Your task to perform on an android device: allow cookies in the chrome app Image 0: 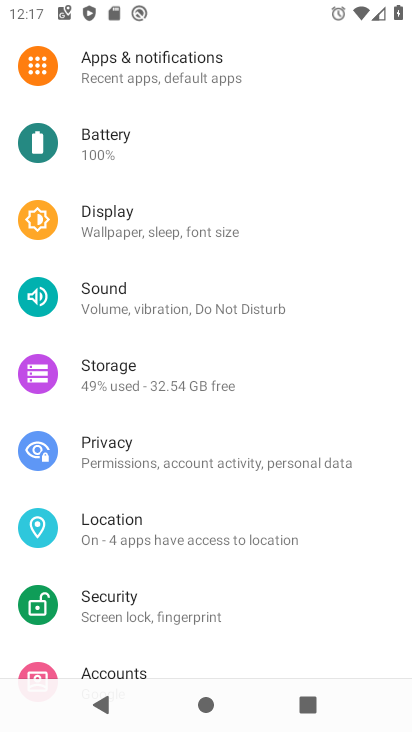
Step 0: press home button
Your task to perform on an android device: allow cookies in the chrome app Image 1: 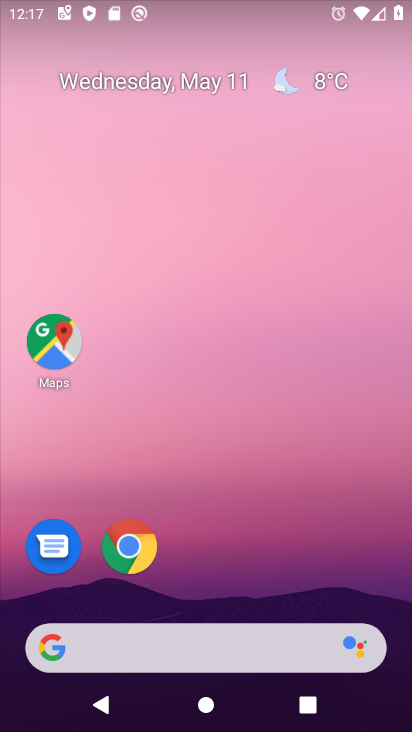
Step 1: click (140, 554)
Your task to perform on an android device: allow cookies in the chrome app Image 2: 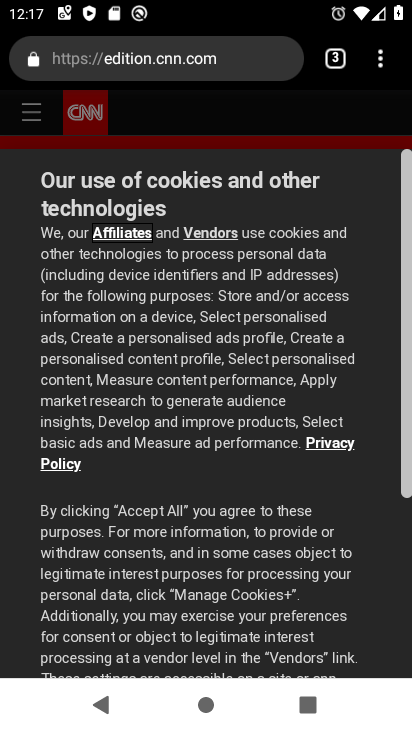
Step 2: drag from (374, 63) to (247, 581)
Your task to perform on an android device: allow cookies in the chrome app Image 3: 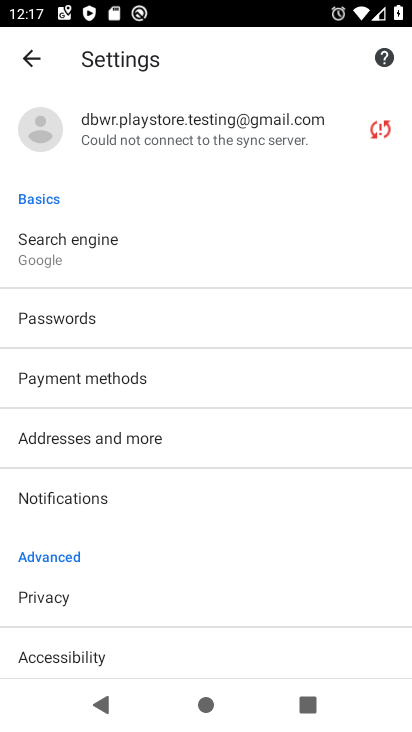
Step 3: drag from (188, 632) to (409, 307)
Your task to perform on an android device: allow cookies in the chrome app Image 4: 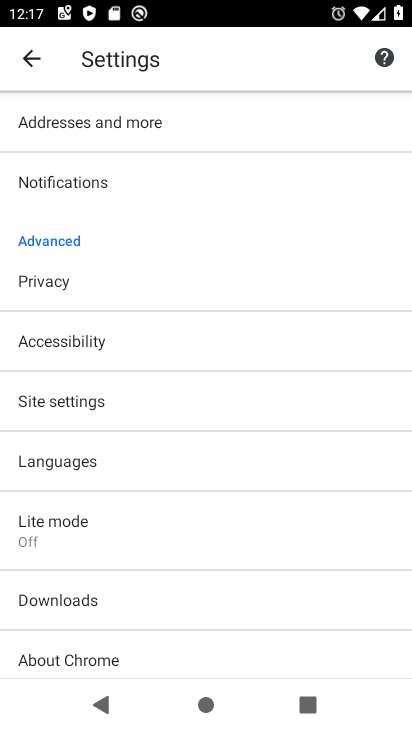
Step 4: click (80, 405)
Your task to perform on an android device: allow cookies in the chrome app Image 5: 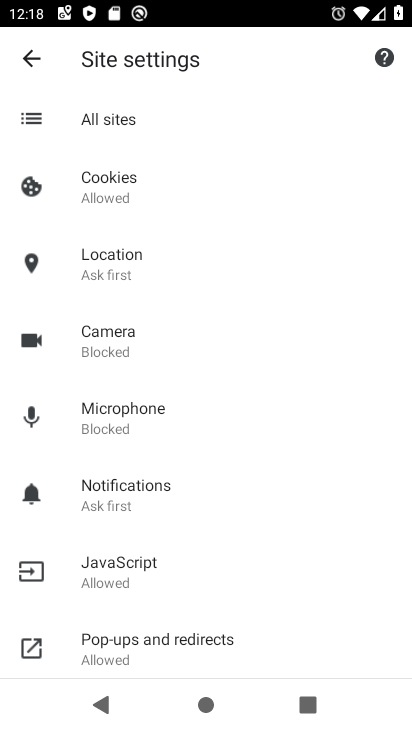
Step 5: click (121, 182)
Your task to perform on an android device: allow cookies in the chrome app Image 6: 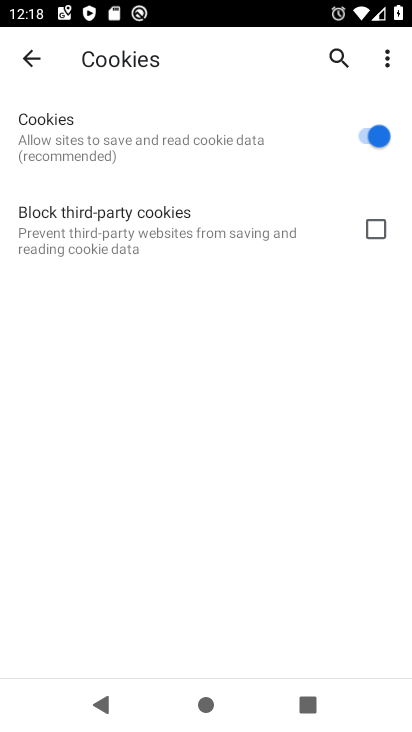
Step 6: task complete